Your task to perform on an android device: turn on javascript in the chrome app Image 0: 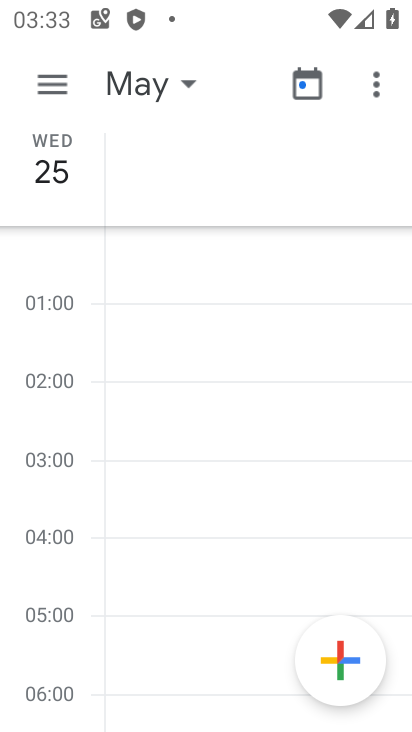
Step 0: press home button
Your task to perform on an android device: turn on javascript in the chrome app Image 1: 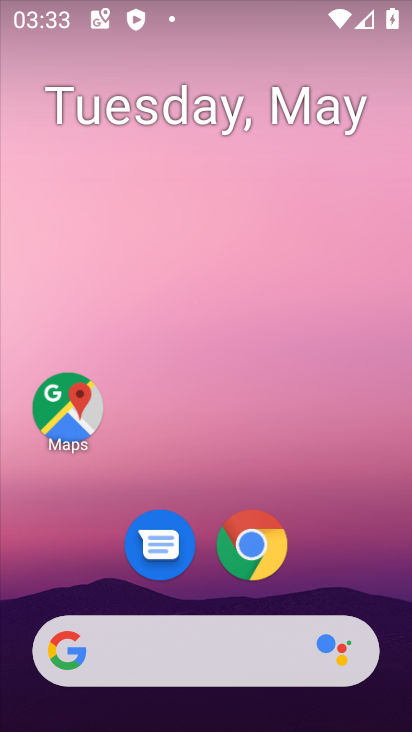
Step 1: click (252, 543)
Your task to perform on an android device: turn on javascript in the chrome app Image 2: 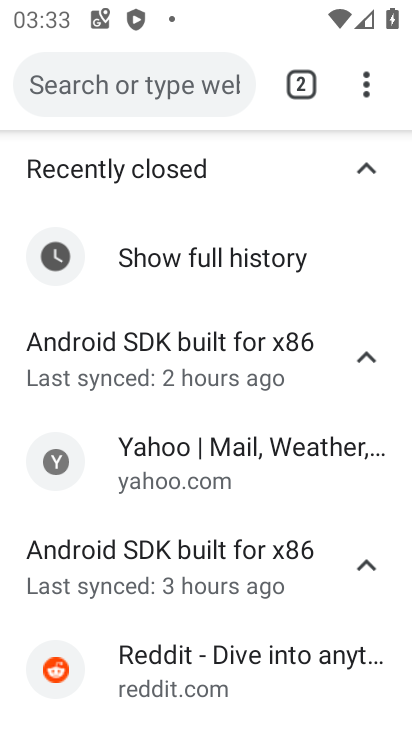
Step 2: click (361, 94)
Your task to perform on an android device: turn on javascript in the chrome app Image 3: 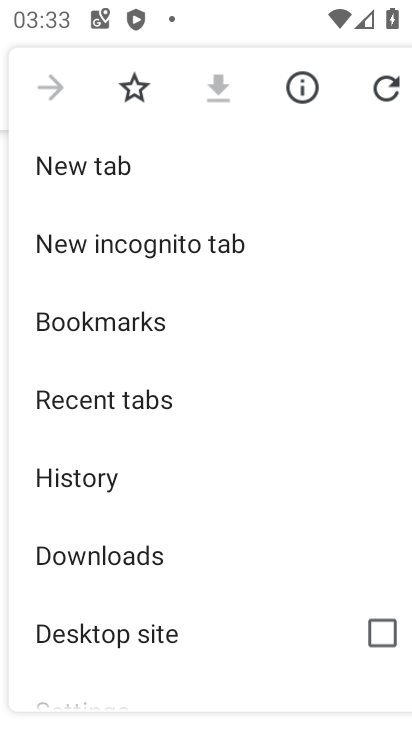
Step 3: drag from (232, 629) to (205, 287)
Your task to perform on an android device: turn on javascript in the chrome app Image 4: 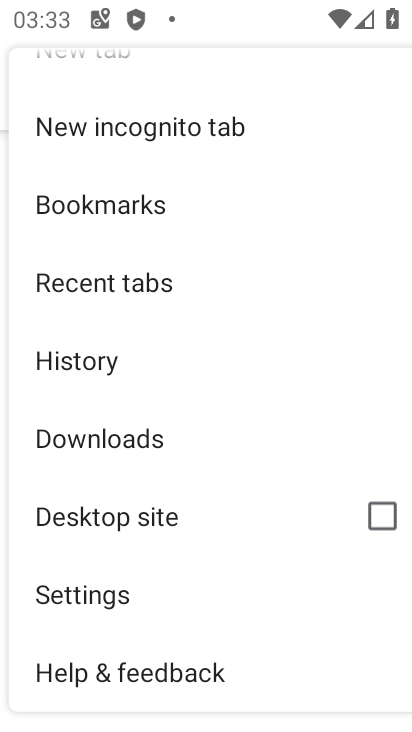
Step 4: click (61, 604)
Your task to perform on an android device: turn on javascript in the chrome app Image 5: 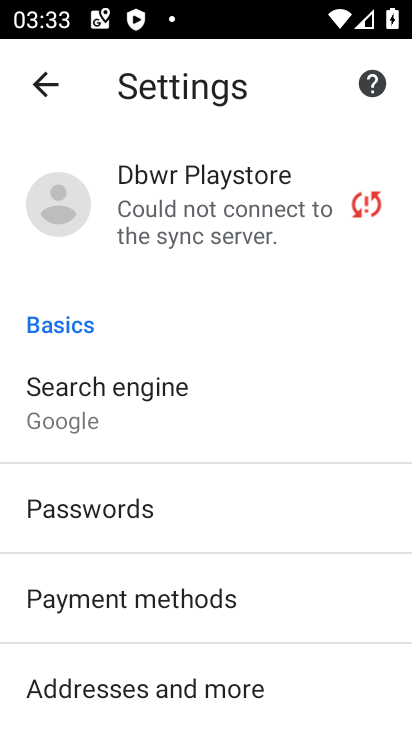
Step 5: drag from (329, 687) to (182, 231)
Your task to perform on an android device: turn on javascript in the chrome app Image 6: 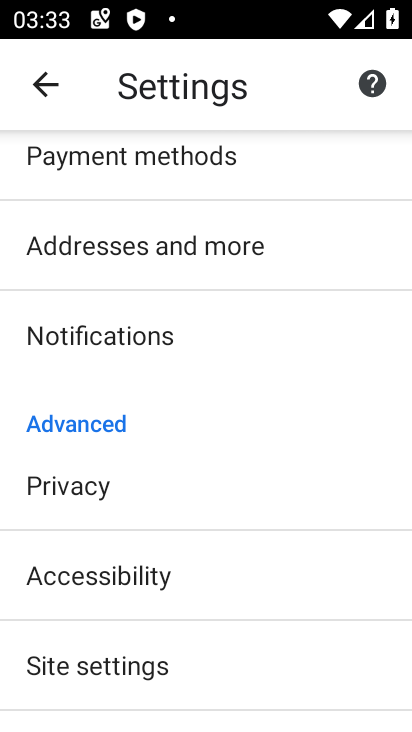
Step 6: drag from (219, 626) to (180, 239)
Your task to perform on an android device: turn on javascript in the chrome app Image 7: 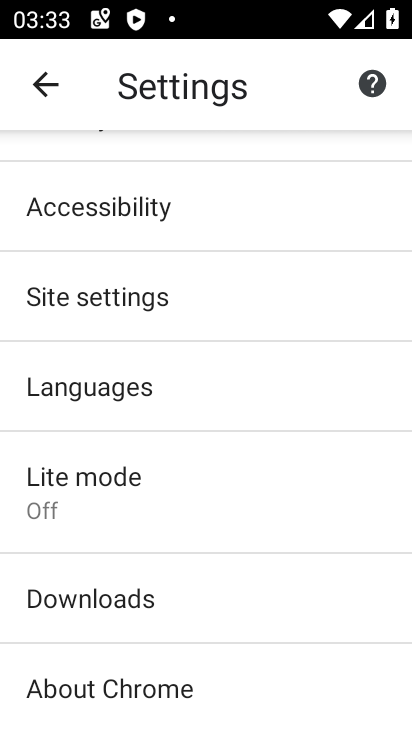
Step 7: click (88, 288)
Your task to perform on an android device: turn on javascript in the chrome app Image 8: 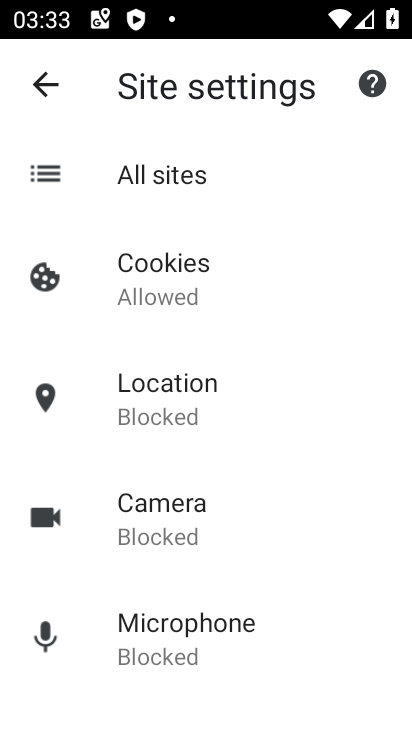
Step 8: drag from (285, 639) to (220, 146)
Your task to perform on an android device: turn on javascript in the chrome app Image 9: 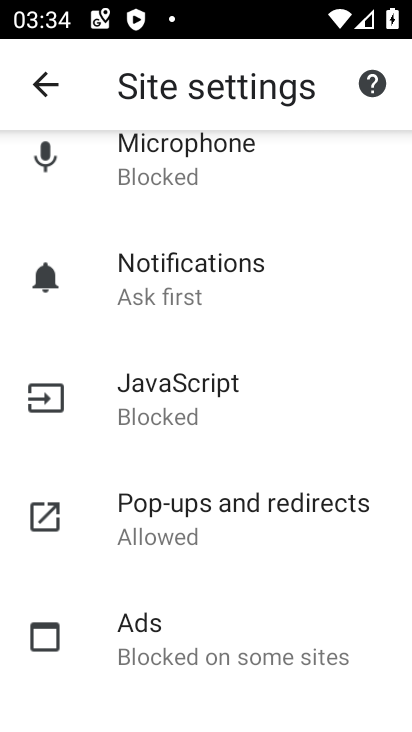
Step 9: click (170, 384)
Your task to perform on an android device: turn on javascript in the chrome app Image 10: 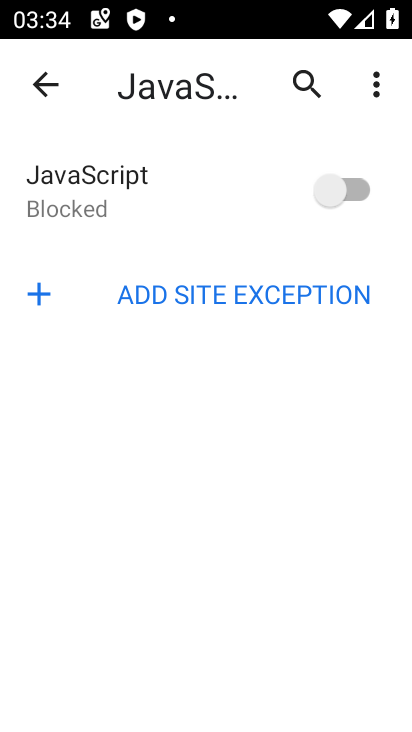
Step 10: click (360, 187)
Your task to perform on an android device: turn on javascript in the chrome app Image 11: 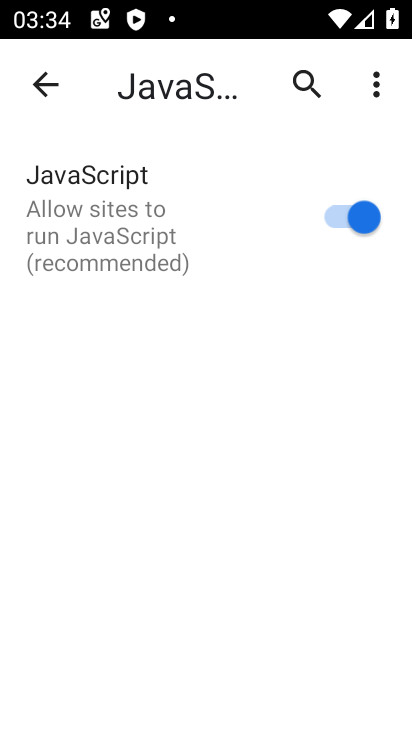
Step 11: task complete